Your task to perform on an android device: Open Google Image 0: 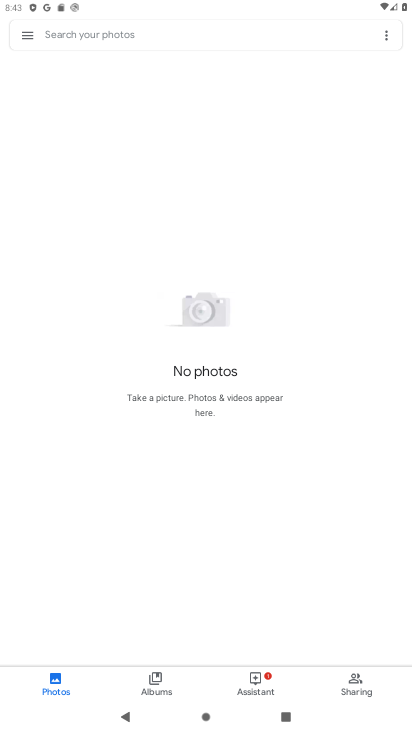
Step 0: press home button
Your task to perform on an android device: Open Google Image 1: 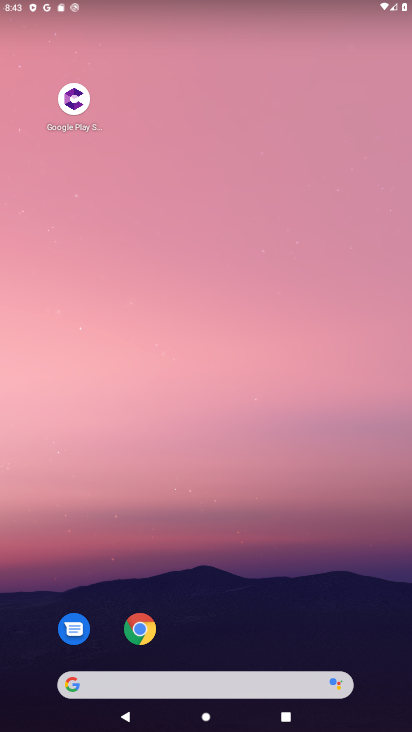
Step 1: drag from (207, 624) to (273, 328)
Your task to perform on an android device: Open Google Image 2: 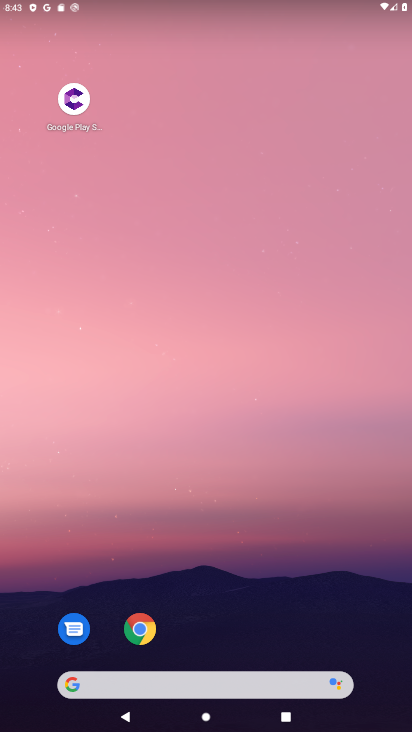
Step 2: drag from (199, 613) to (259, 158)
Your task to perform on an android device: Open Google Image 3: 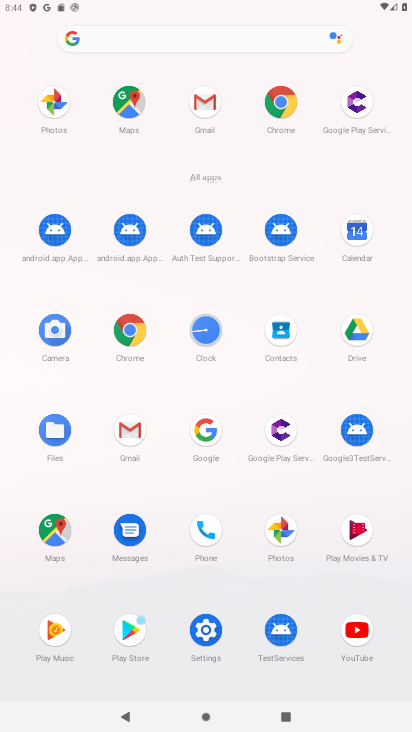
Step 3: click (203, 415)
Your task to perform on an android device: Open Google Image 4: 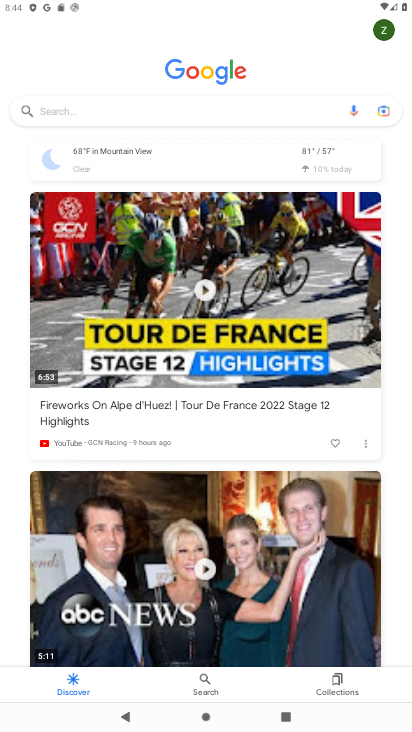
Step 4: task complete